Your task to perform on an android device: Go to Google Image 0: 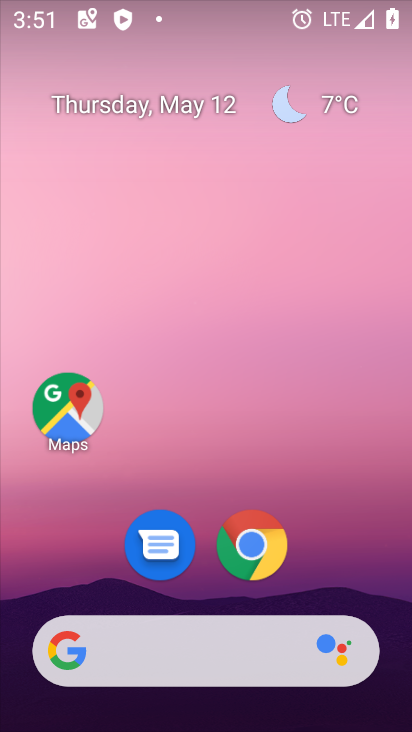
Step 0: click (247, 544)
Your task to perform on an android device: Go to Google Image 1: 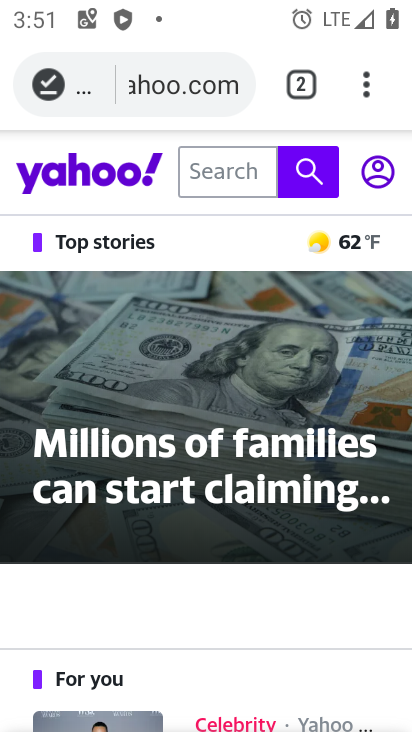
Step 1: task complete